Your task to perform on an android device: all mails in gmail Image 0: 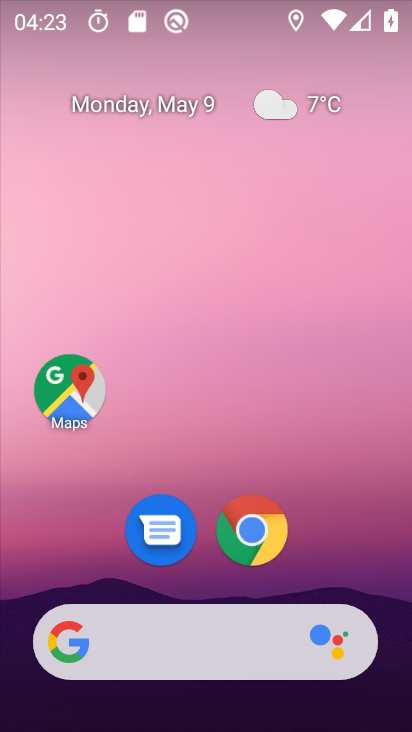
Step 0: drag from (161, 543) to (272, 42)
Your task to perform on an android device: all mails in gmail Image 1: 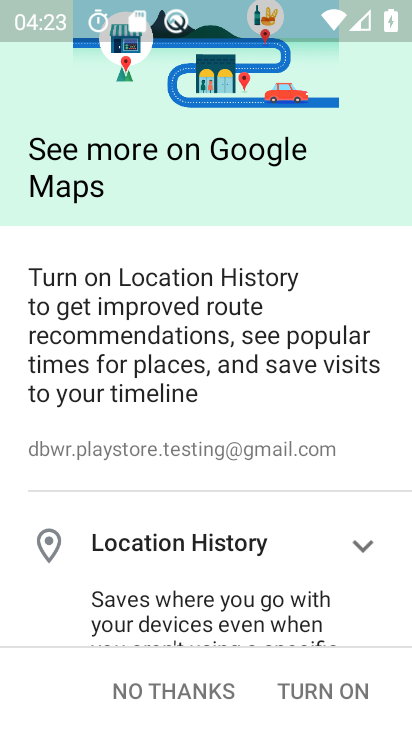
Step 1: click (167, 675)
Your task to perform on an android device: all mails in gmail Image 2: 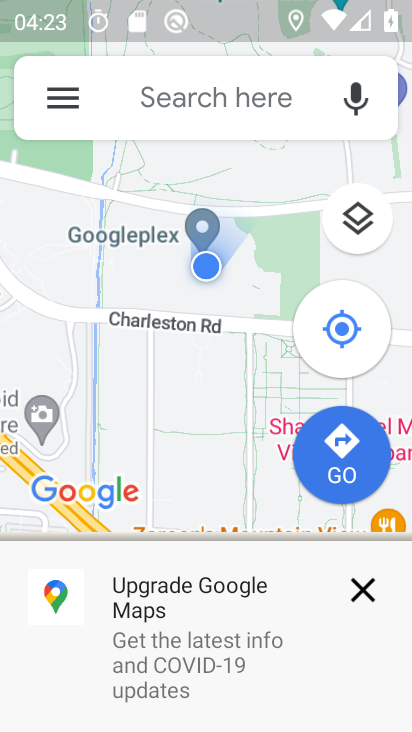
Step 2: press back button
Your task to perform on an android device: all mails in gmail Image 3: 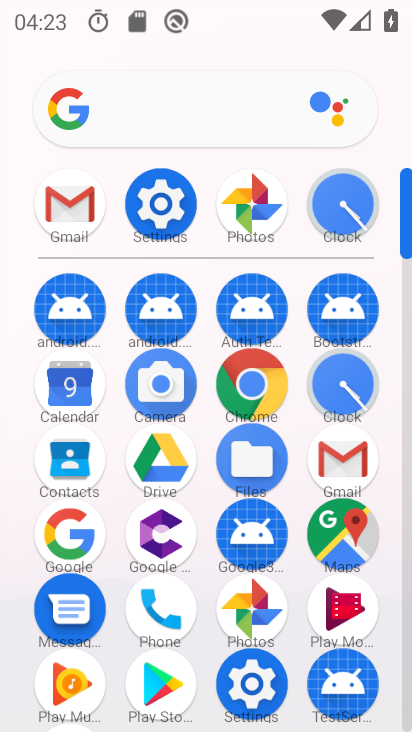
Step 3: click (82, 207)
Your task to perform on an android device: all mails in gmail Image 4: 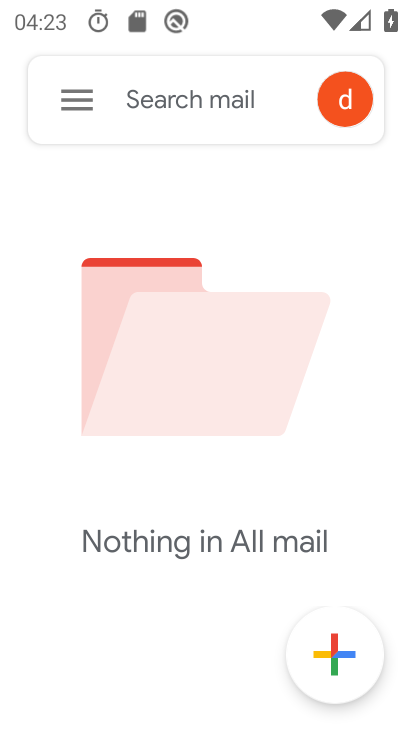
Step 4: task complete